Your task to perform on an android device: Open Google Image 0: 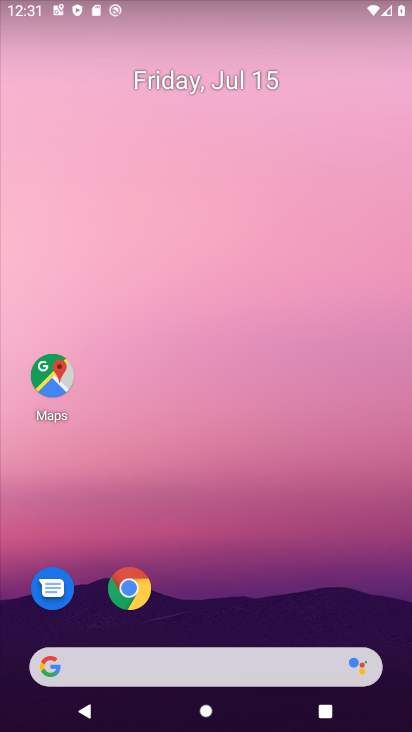
Step 0: drag from (255, 684) to (285, 158)
Your task to perform on an android device: Open Google Image 1: 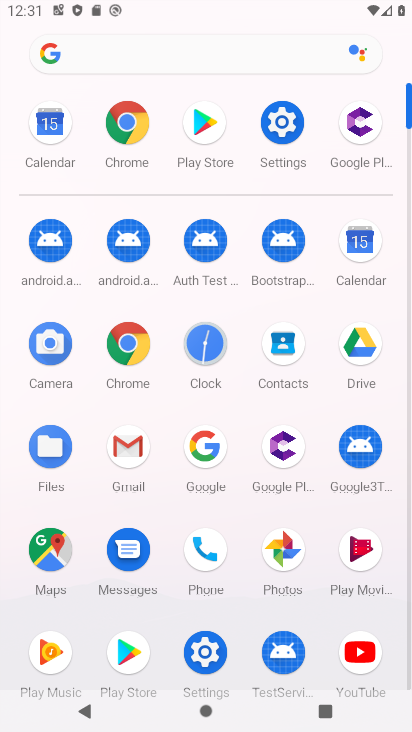
Step 1: click (201, 456)
Your task to perform on an android device: Open Google Image 2: 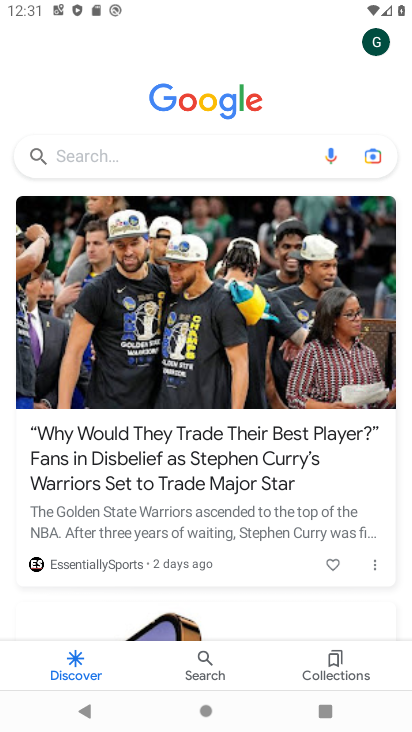
Step 2: task complete